Your task to perform on an android device: allow cookies in the chrome app Image 0: 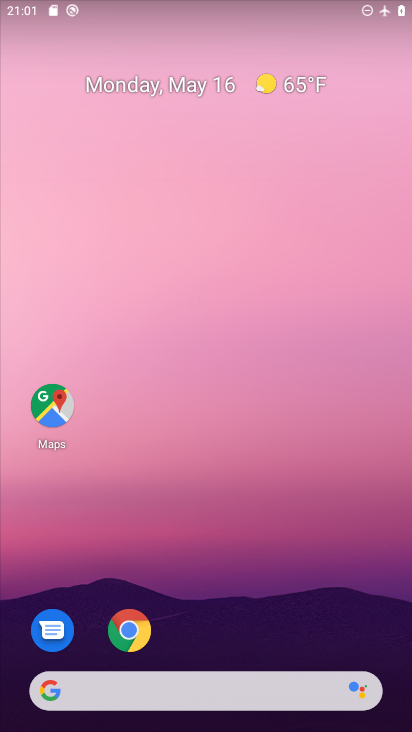
Step 0: click (137, 627)
Your task to perform on an android device: allow cookies in the chrome app Image 1: 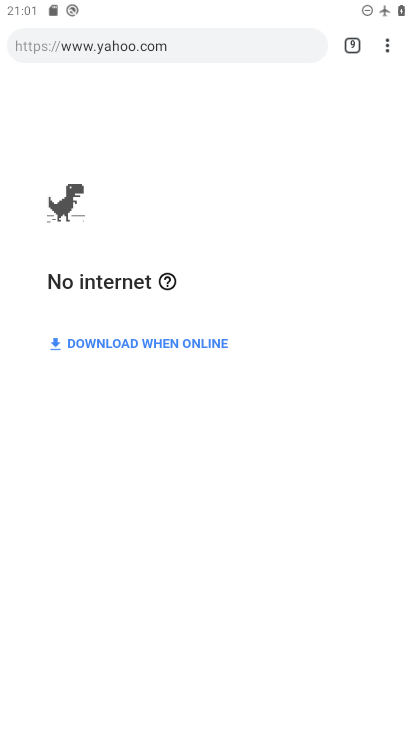
Step 1: drag from (382, 45) to (235, 264)
Your task to perform on an android device: allow cookies in the chrome app Image 2: 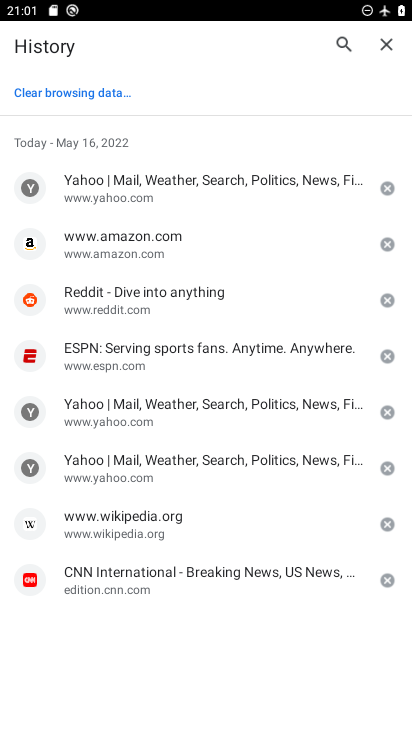
Step 2: click (63, 94)
Your task to perform on an android device: allow cookies in the chrome app Image 3: 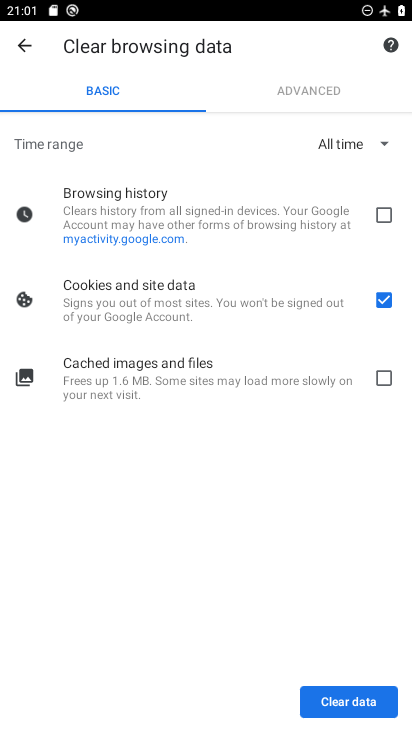
Step 3: click (385, 385)
Your task to perform on an android device: allow cookies in the chrome app Image 4: 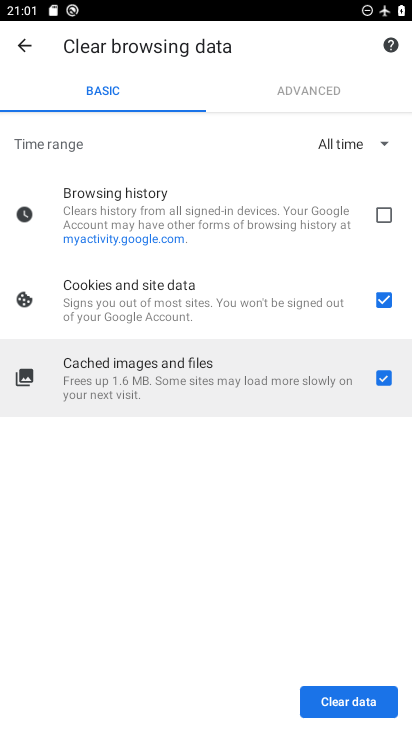
Step 4: click (373, 214)
Your task to perform on an android device: allow cookies in the chrome app Image 5: 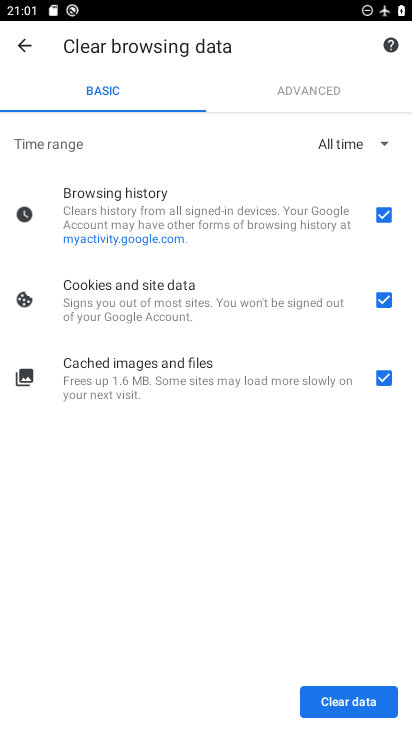
Step 5: click (383, 216)
Your task to perform on an android device: allow cookies in the chrome app Image 6: 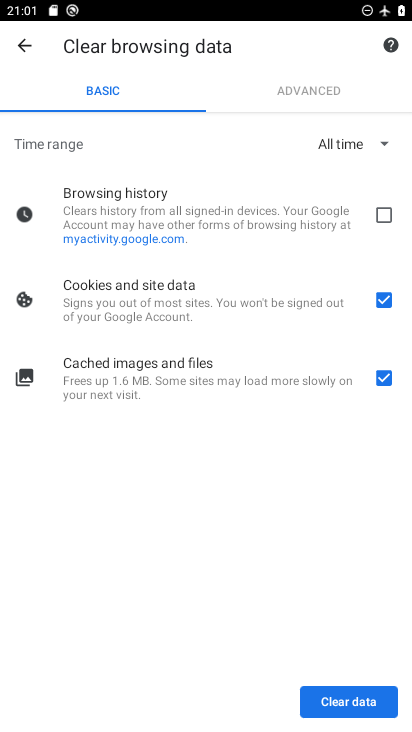
Step 6: click (383, 209)
Your task to perform on an android device: allow cookies in the chrome app Image 7: 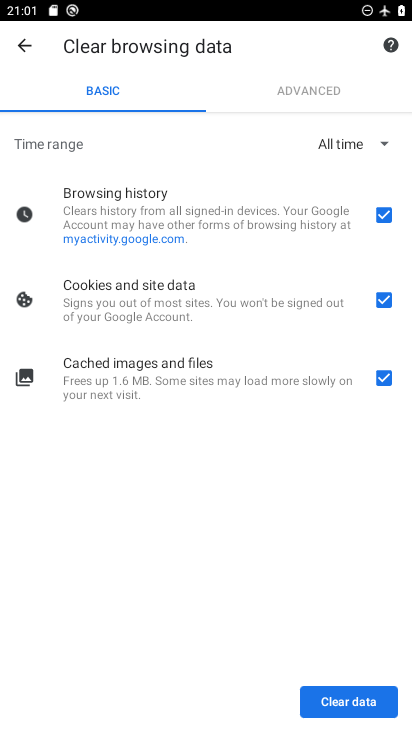
Step 7: click (328, 715)
Your task to perform on an android device: allow cookies in the chrome app Image 8: 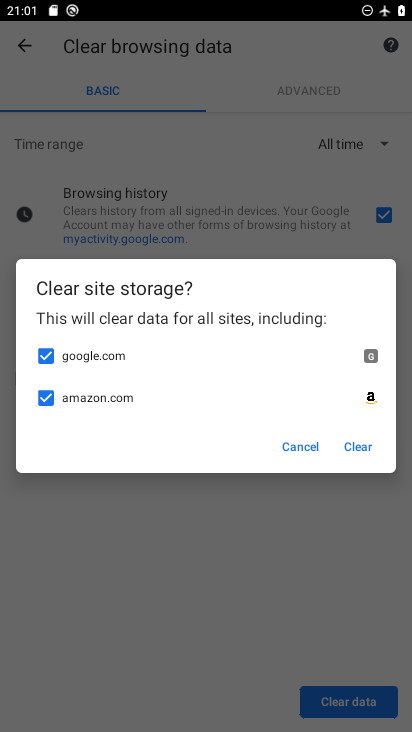
Step 8: click (360, 442)
Your task to perform on an android device: allow cookies in the chrome app Image 9: 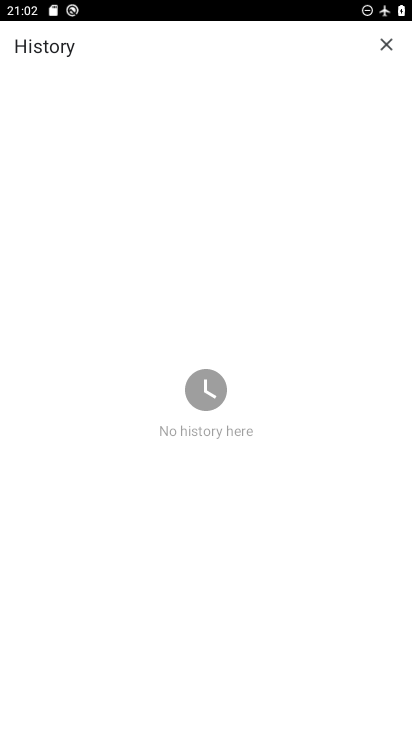
Step 9: task complete